Your task to perform on an android device: open app "Upside-Cash back on gas & food" (install if not already installed) Image 0: 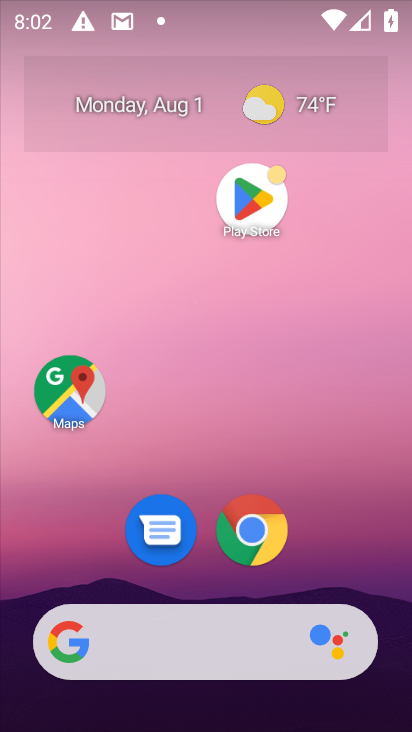
Step 0: click (246, 192)
Your task to perform on an android device: open app "Upside-Cash back on gas & food" (install if not already installed) Image 1: 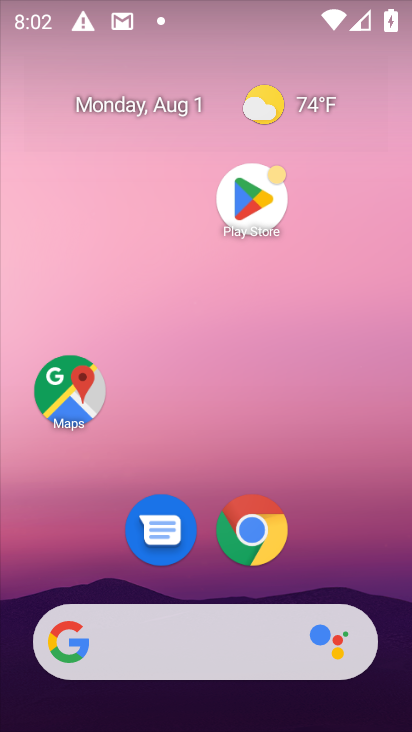
Step 1: click (246, 192)
Your task to perform on an android device: open app "Upside-Cash back on gas & food" (install if not already installed) Image 2: 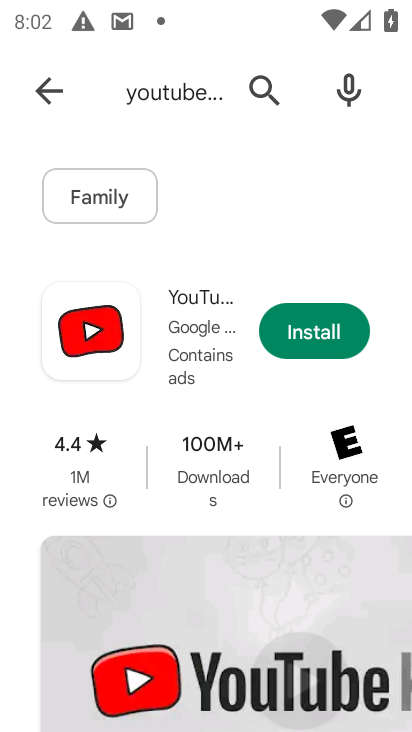
Step 2: click (272, 107)
Your task to perform on an android device: open app "Upside-Cash back on gas & food" (install if not already installed) Image 3: 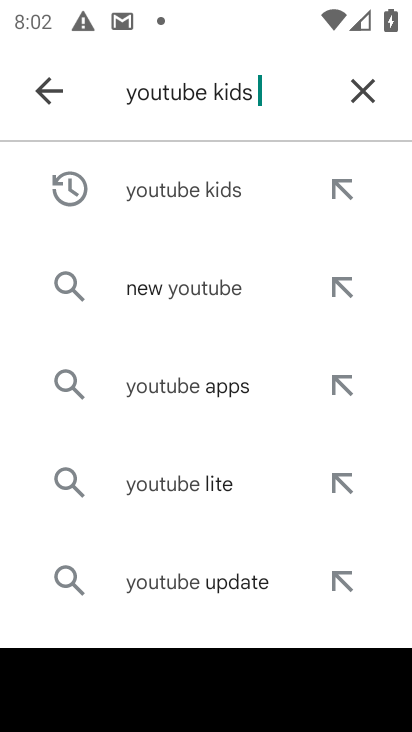
Step 3: click (348, 90)
Your task to perform on an android device: open app "Upside-Cash back on gas & food" (install if not already installed) Image 4: 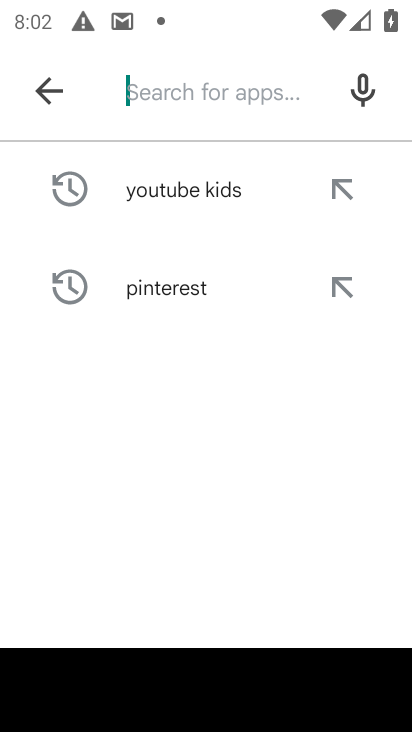
Step 4: type "upside cash "
Your task to perform on an android device: open app "Upside-Cash back on gas & food" (install if not already installed) Image 5: 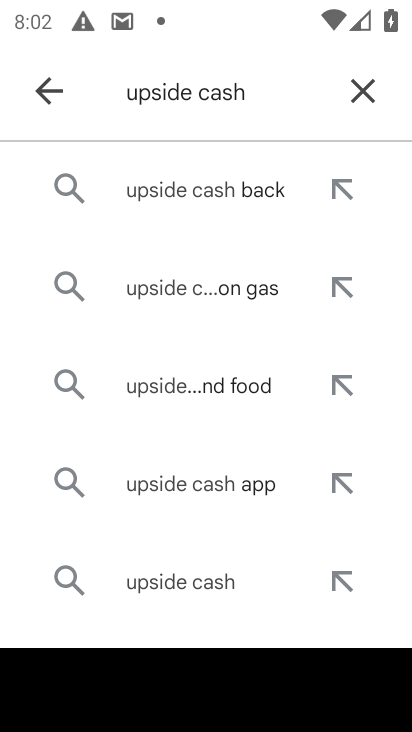
Step 5: click (260, 281)
Your task to perform on an android device: open app "Upside-Cash back on gas & food" (install if not already installed) Image 6: 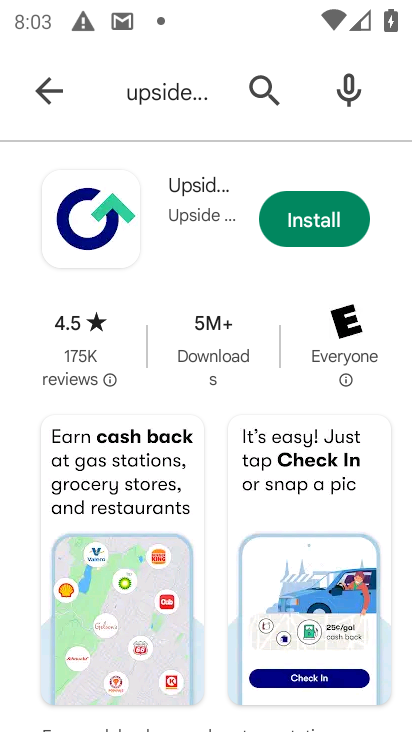
Step 6: drag from (207, 607) to (400, 15)
Your task to perform on an android device: open app "Upside-Cash back on gas & food" (install if not already installed) Image 7: 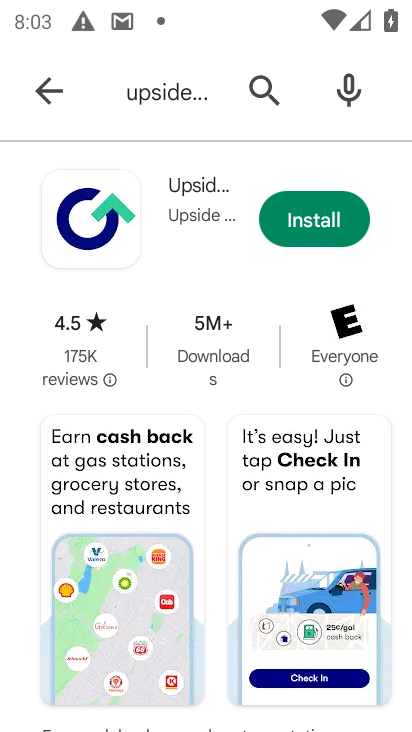
Step 7: drag from (246, 491) to (306, 21)
Your task to perform on an android device: open app "Upside-Cash back on gas & food" (install if not already installed) Image 8: 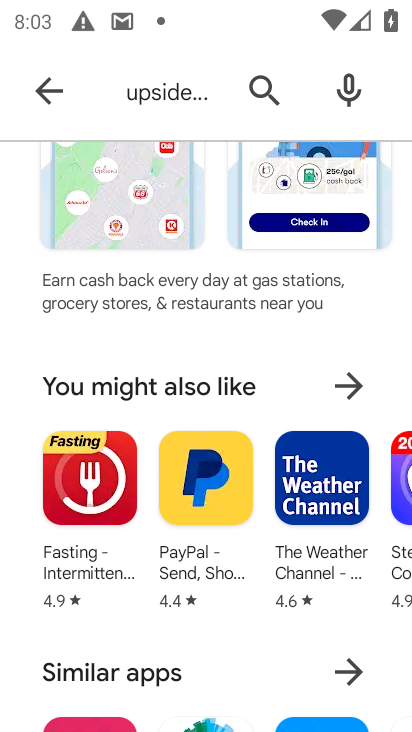
Step 8: drag from (245, 609) to (363, 9)
Your task to perform on an android device: open app "Upside-Cash back on gas & food" (install if not already installed) Image 9: 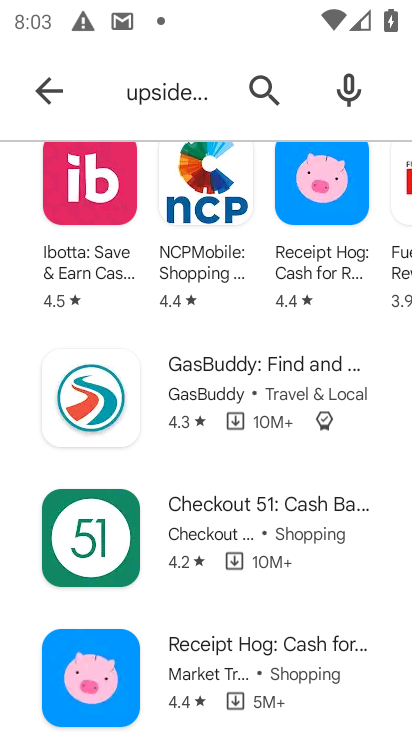
Step 9: drag from (232, 636) to (395, 12)
Your task to perform on an android device: open app "Upside-Cash back on gas & food" (install if not already installed) Image 10: 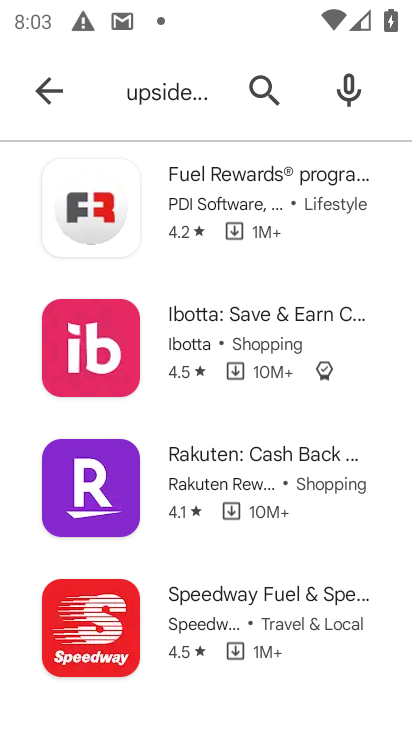
Step 10: click (265, 94)
Your task to perform on an android device: open app "Upside-Cash back on gas & food" (install if not already installed) Image 11: 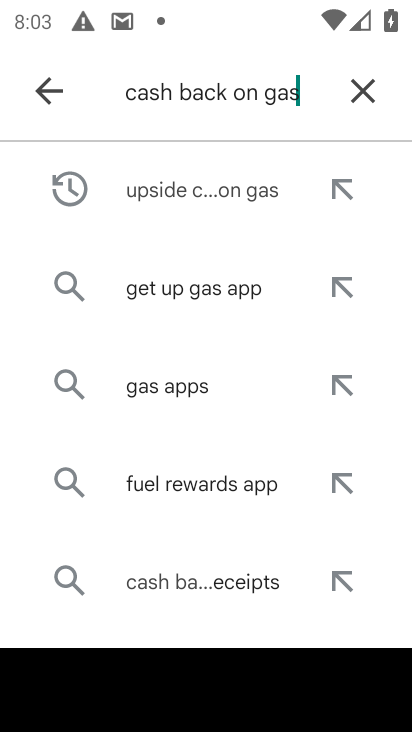
Step 11: click (354, 90)
Your task to perform on an android device: open app "Upside-Cash back on gas & food" (install if not already installed) Image 12: 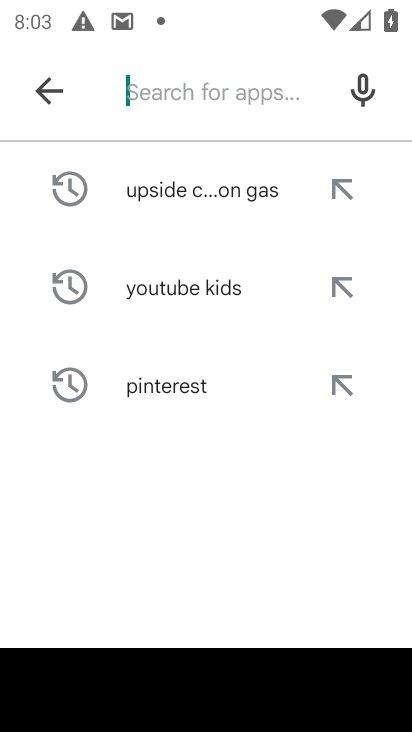
Step 12: type "Upside-Cash back on gas & food"
Your task to perform on an android device: open app "Upside-Cash back on gas & food" (install if not already installed) Image 13: 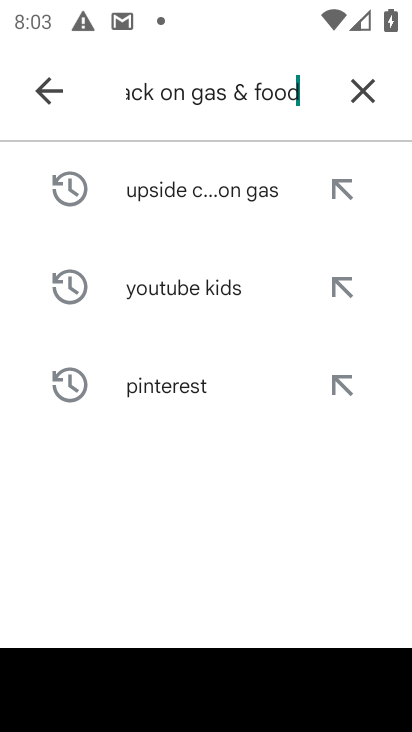
Step 13: type ""
Your task to perform on an android device: open app "Upside-Cash back on gas & food" (install if not already installed) Image 14: 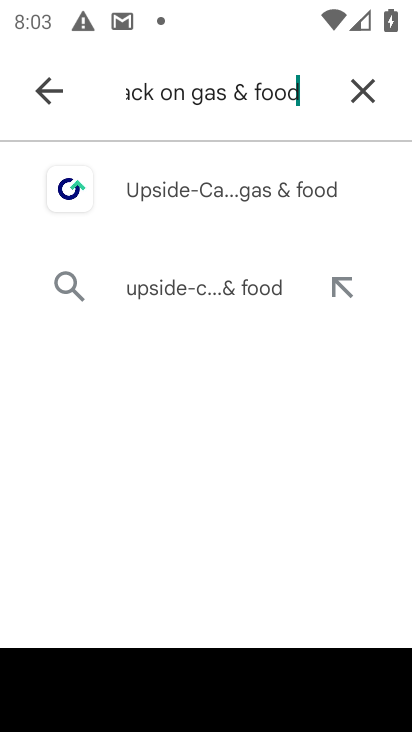
Step 14: click (298, 188)
Your task to perform on an android device: open app "Upside-Cash back on gas & food" (install if not already installed) Image 15: 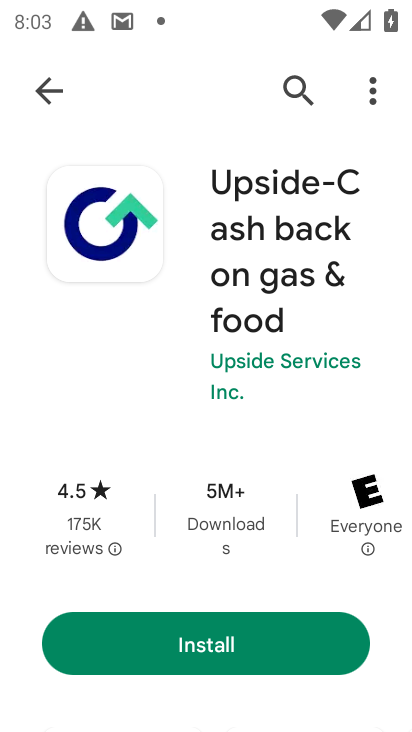
Step 15: click (179, 663)
Your task to perform on an android device: open app "Upside-Cash back on gas & food" (install if not already installed) Image 16: 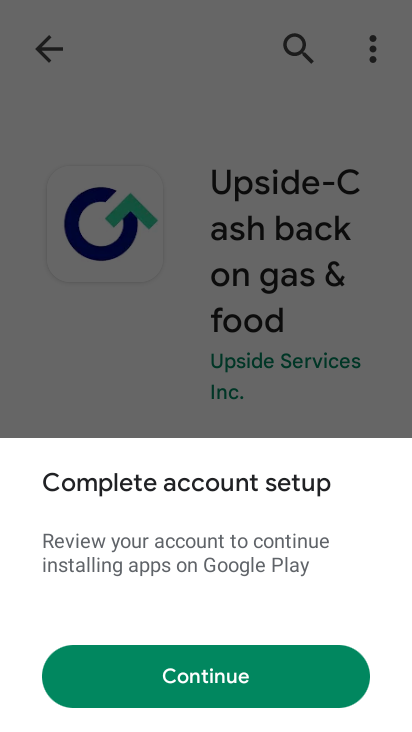
Step 16: click (212, 675)
Your task to perform on an android device: open app "Upside-Cash back on gas & food" (install if not already installed) Image 17: 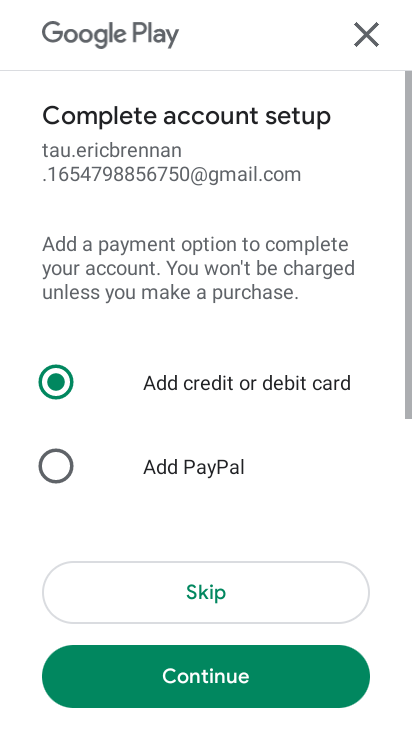
Step 17: click (229, 576)
Your task to perform on an android device: open app "Upside-Cash back on gas & food" (install if not already installed) Image 18: 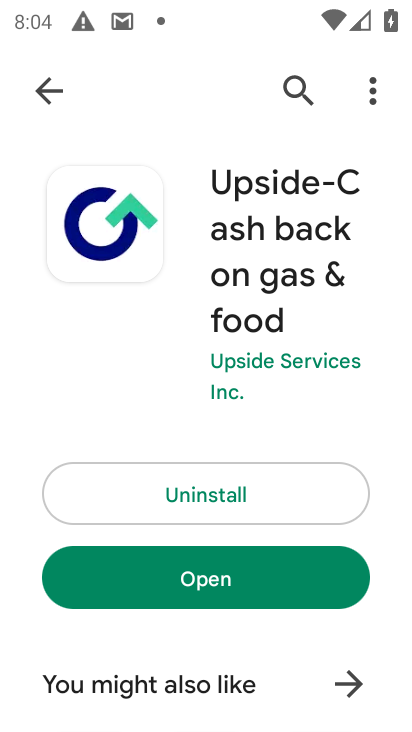
Step 18: click (284, 579)
Your task to perform on an android device: open app "Upside-Cash back on gas & food" (install if not already installed) Image 19: 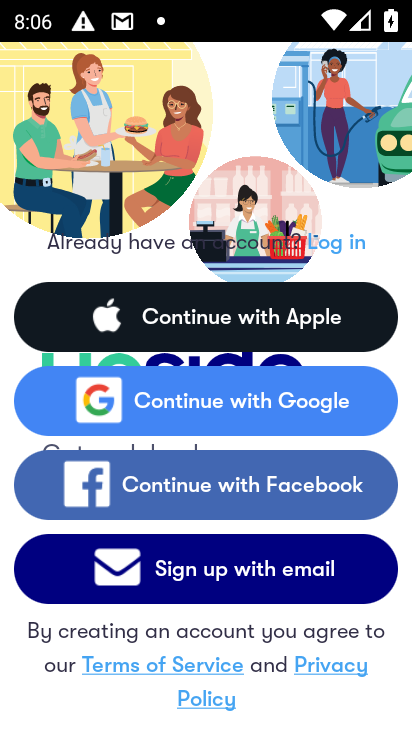
Step 19: task complete